Your task to perform on an android device: find snoozed emails in the gmail app Image 0: 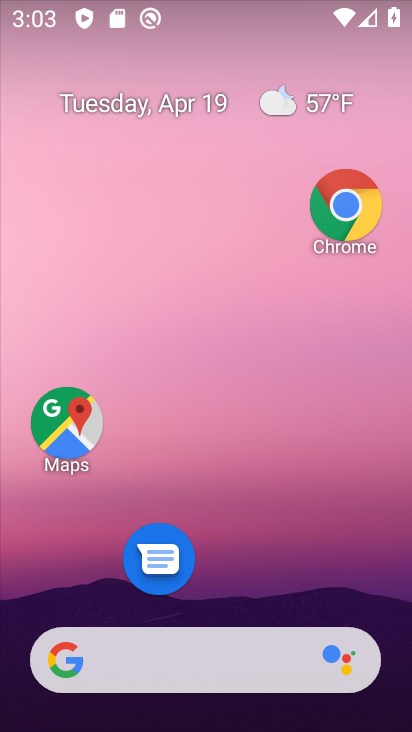
Step 0: drag from (110, 622) to (204, 137)
Your task to perform on an android device: find snoozed emails in the gmail app Image 1: 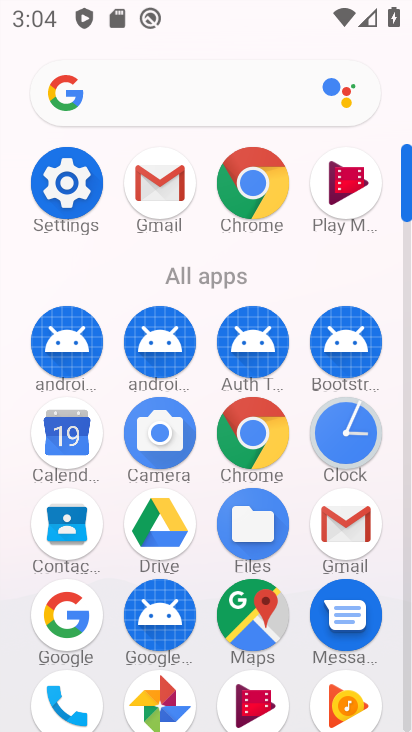
Step 1: click (174, 178)
Your task to perform on an android device: find snoozed emails in the gmail app Image 2: 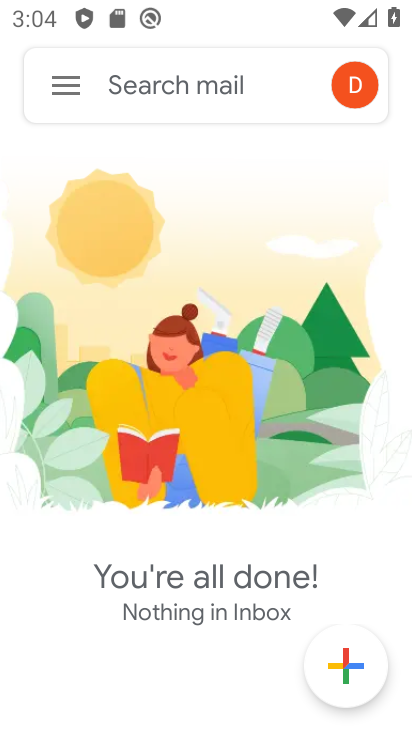
Step 2: click (61, 81)
Your task to perform on an android device: find snoozed emails in the gmail app Image 3: 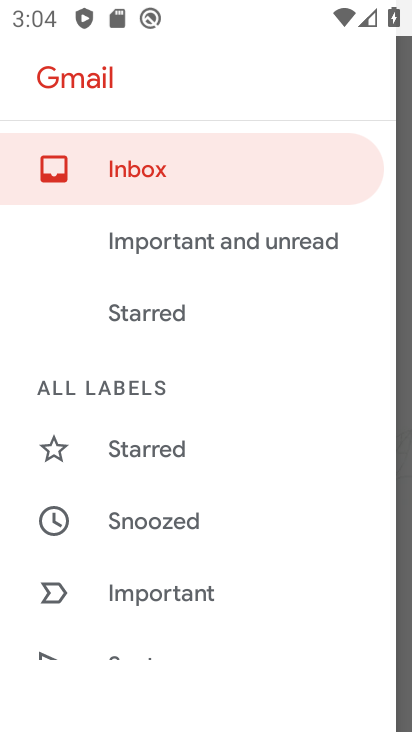
Step 3: click (177, 525)
Your task to perform on an android device: find snoozed emails in the gmail app Image 4: 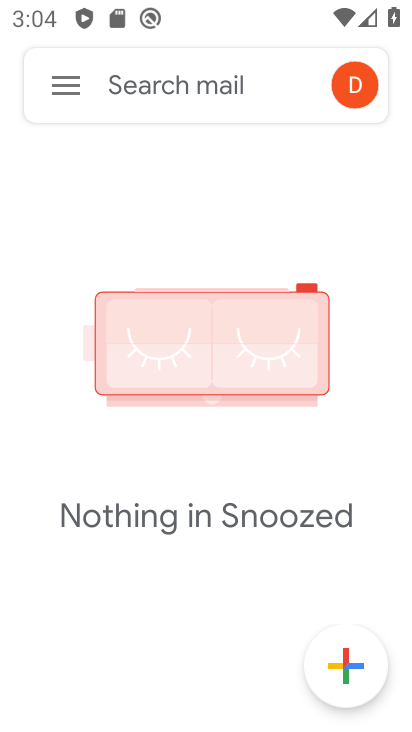
Step 4: task complete